Your task to perform on an android device: Open internet settings Image 0: 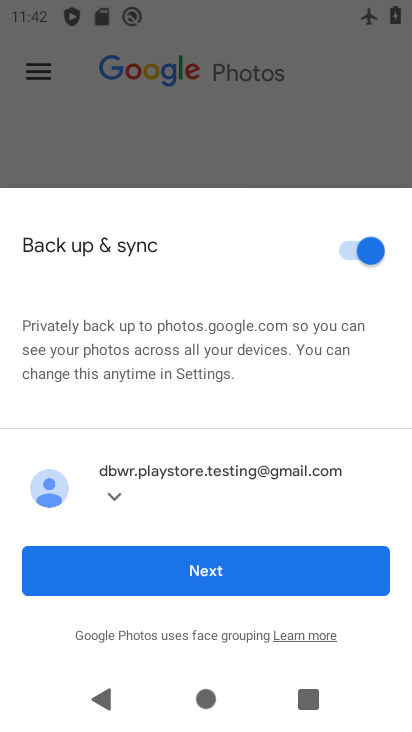
Step 0: press home button
Your task to perform on an android device: Open internet settings Image 1: 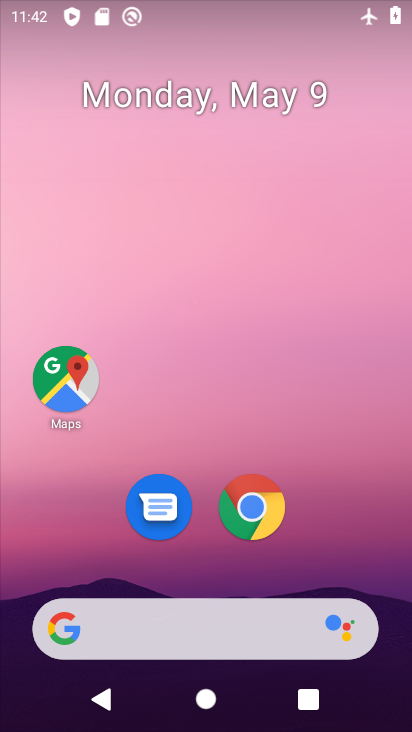
Step 1: drag from (311, 23) to (319, 425)
Your task to perform on an android device: Open internet settings Image 2: 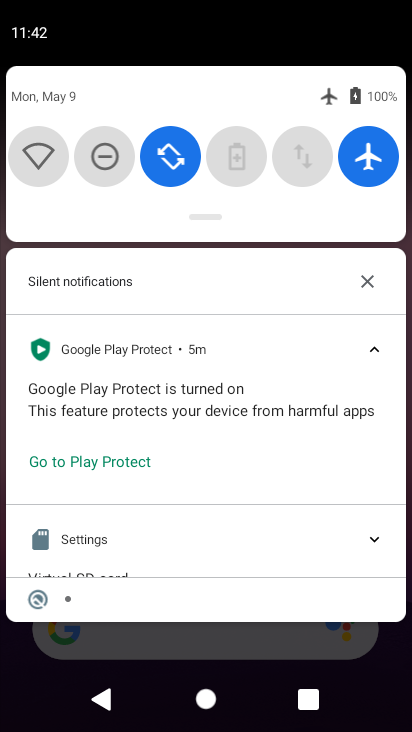
Step 2: drag from (225, 216) to (223, 545)
Your task to perform on an android device: Open internet settings Image 3: 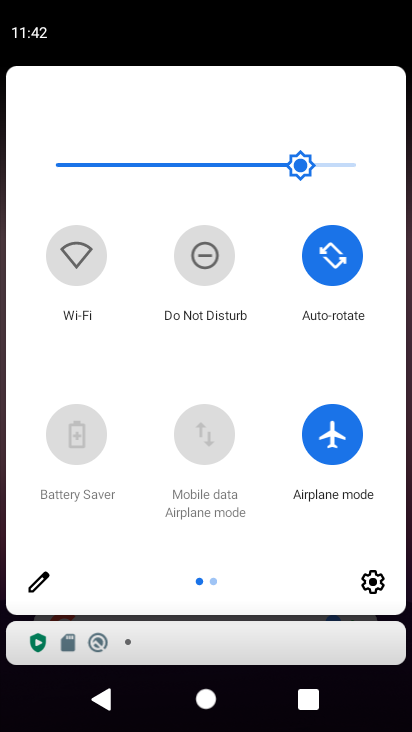
Step 3: drag from (299, 367) to (45, 393)
Your task to perform on an android device: Open internet settings Image 4: 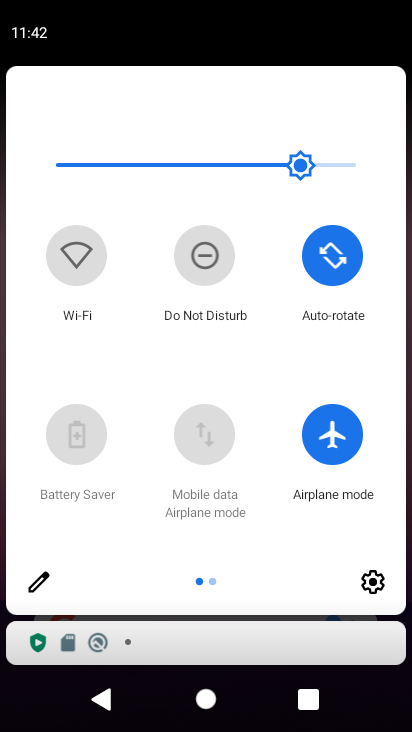
Step 4: click (374, 587)
Your task to perform on an android device: Open internet settings Image 5: 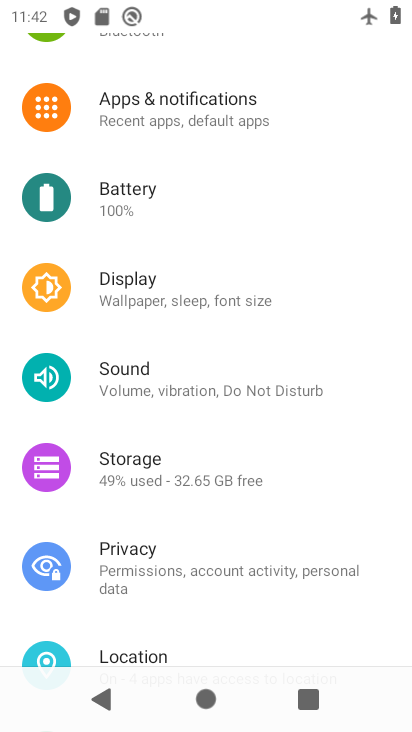
Step 5: drag from (179, 141) to (184, 434)
Your task to perform on an android device: Open internet settings Image 6: 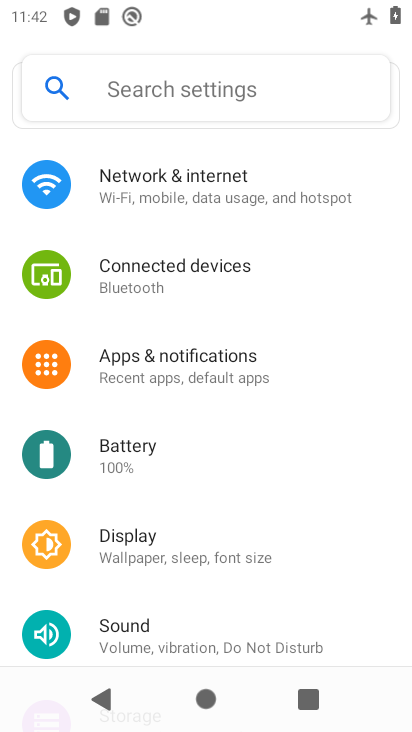
Step 6: click (182, 204)
Your task to perform on an android device: Open internet settings Image 7: 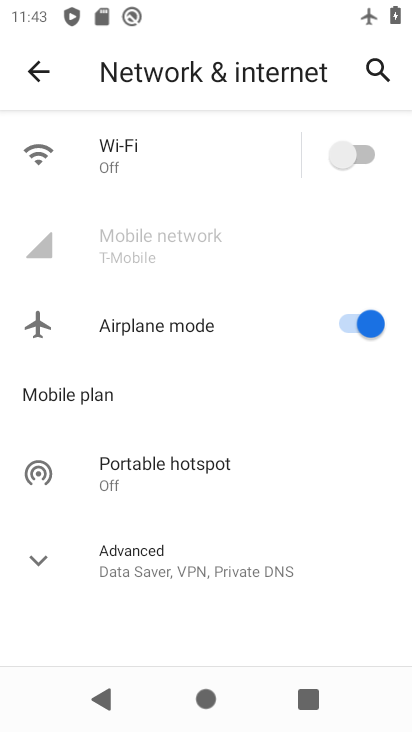
Step 7: task complete